Your task to perform on an android device: open app "Facebook Messenger" (install if not already installed) and go to login screen Image 0: 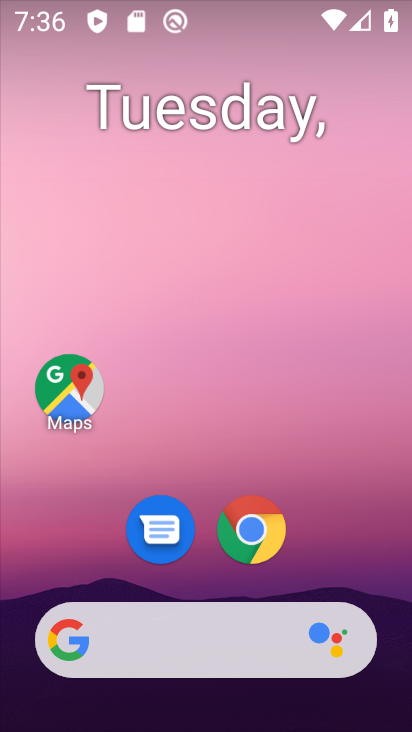
Step 0: press home button
Your task to perform on an android device: open app "Facebook Messenger" (install if not already installed) and go to login screen Image 1: 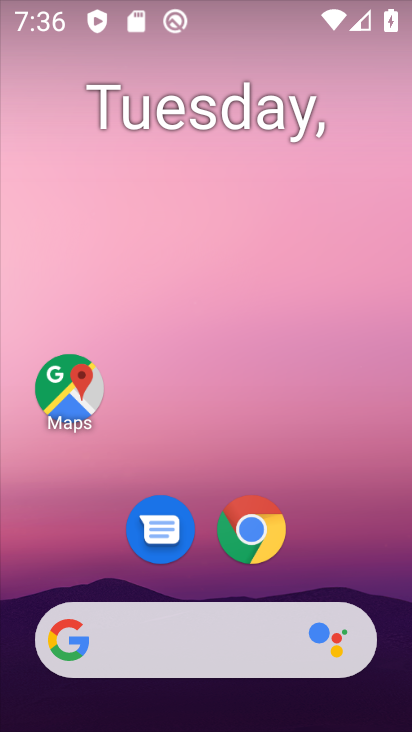
Step 1: drag from (341, 579) to (378, 0)
Your task to perform on an android device: open app "Facebook Messenger" (install if not already installed) and go to login screen Image 2: 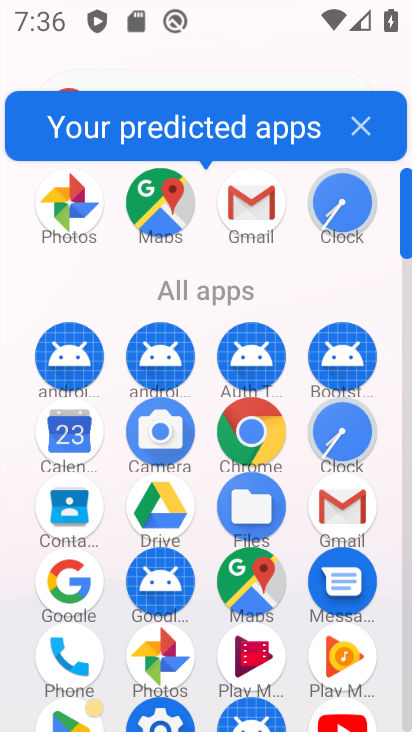
Step 2: drag from (204, 616) to (226, 185)
Your task to perform on an android device: open app "Facebook Messenger" (install if not already installed) and go to login screen Image 3: 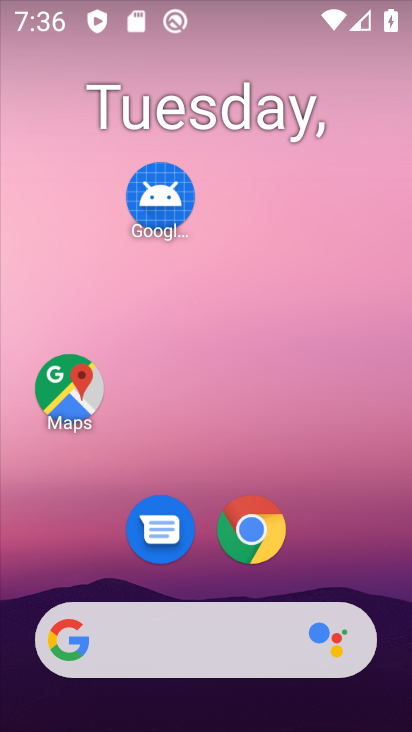
Step 3: drag from (330, 551) to (349, 43)
Your task to perform on an android device: open app "Facebook Messenger" (install if not already installed) and go to login screen Image 4: 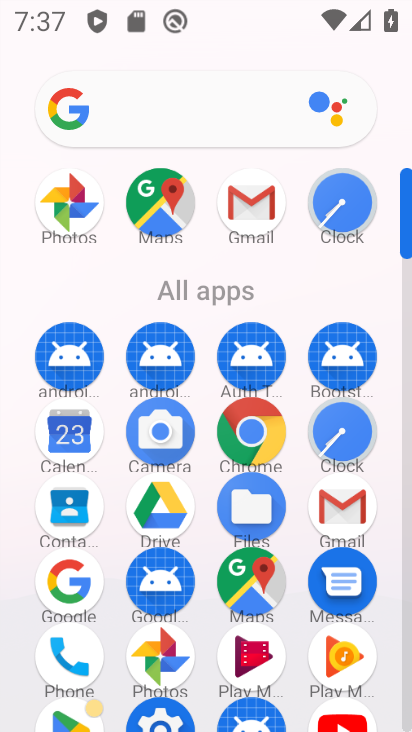
Step 4: drag from (300, 549) to (312, 96)
Your task to perform on an android device: open app "Facebook Messenger" (install if not already installed) and go to login screen Image 5: 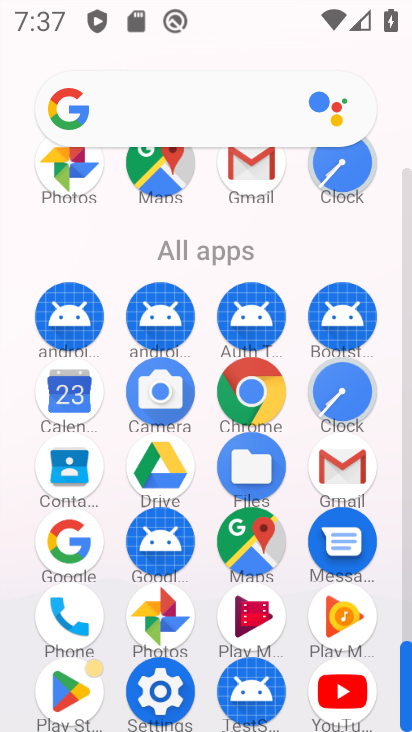
Step 5: click (64, 691)
Your task to perform on an android device: open app "Facebook Messenger" (install if not already installed) and go to login screen Image 6: 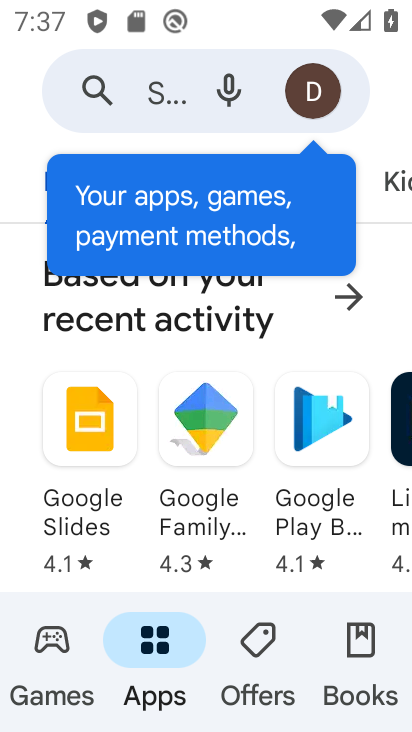
Step 6: click (322, 86)
Your task to perform on an android device: open app "Facebook Messenger" (install if not already installed) and go to login screen Image 7: 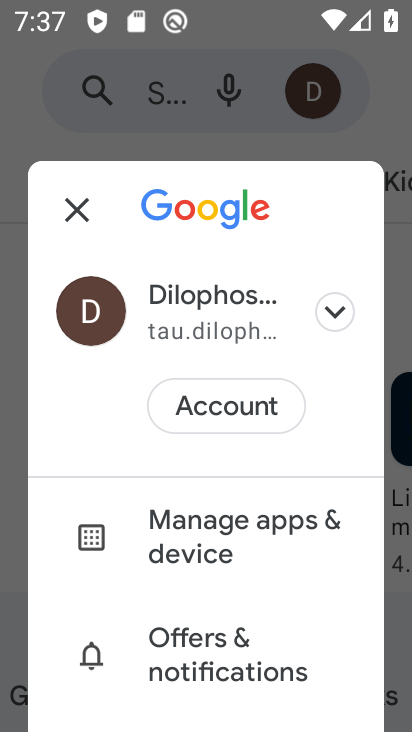
Step 7: click (197, 554)
Your task to perform on an android device: open app "Facebook Messenger" (install if not already installed) and go to login screen Image 8: 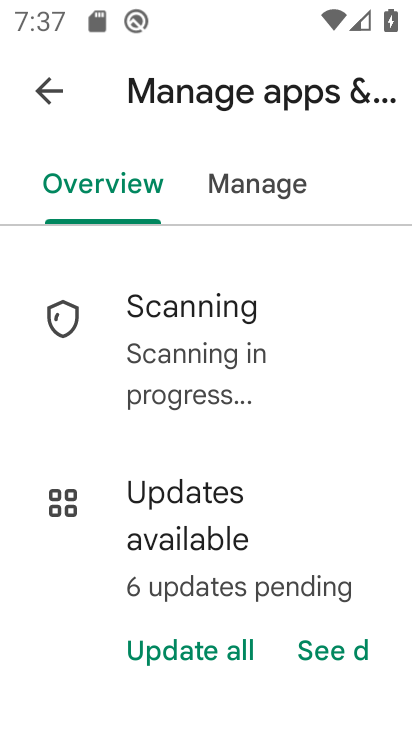
Step 8: click (52, 97)
Your task to perform on an android device: open app "Facebook Messenger" (install if not already installed) and go to login screen Image 9: 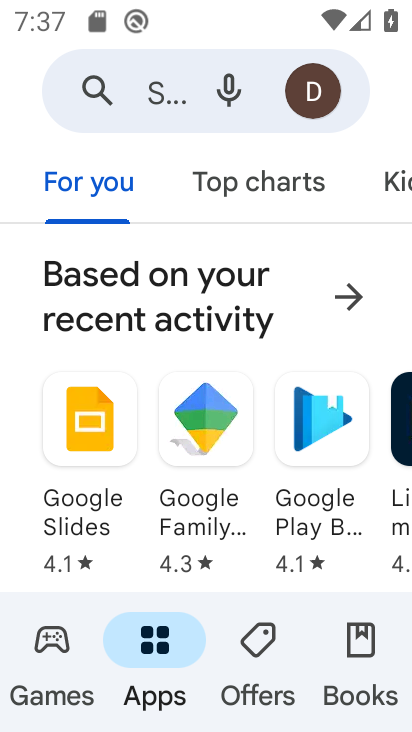
Step 9: click (140, 89)
Your task to perform on an android device: open app "Facebook Messenger" (install if not already installed) and go to login screen Image 10: 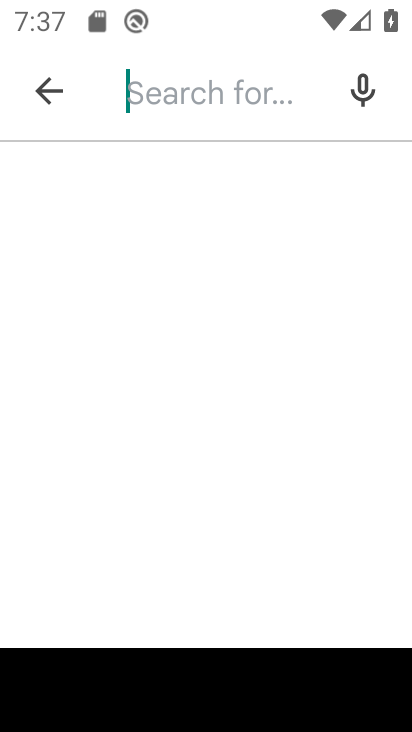
Step 10: type "Facebook Messenger"
Your task to perform on an android device: open app "Facebook Messenger" (install if not already installed) and go to login screen Image 11: 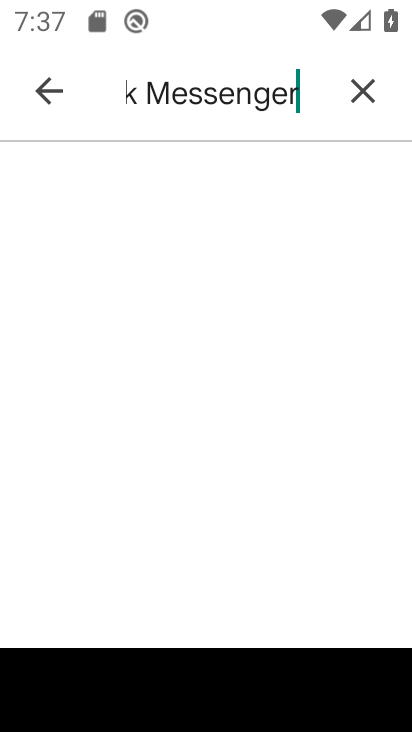
Step 11: type ""
Your task to perform on an android device: open app "Facebook Messenger" (install if not already installed) and go to login screen Image 12: 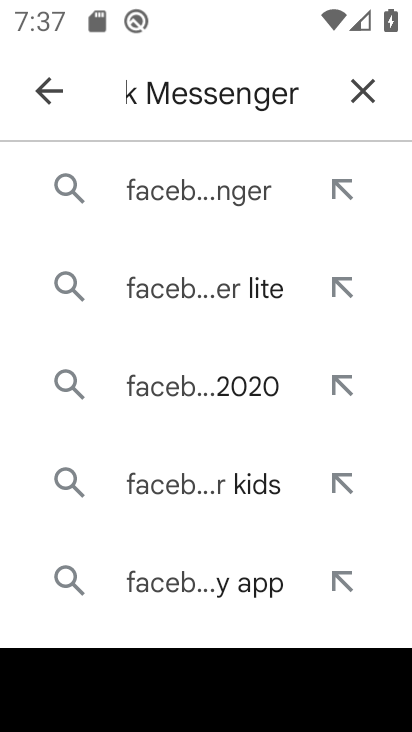
Step 12: click (214, 202)
Your task to perform on an android device: open app "Facebook Messenger" (install if not already installed) and go to login screen Image 13: 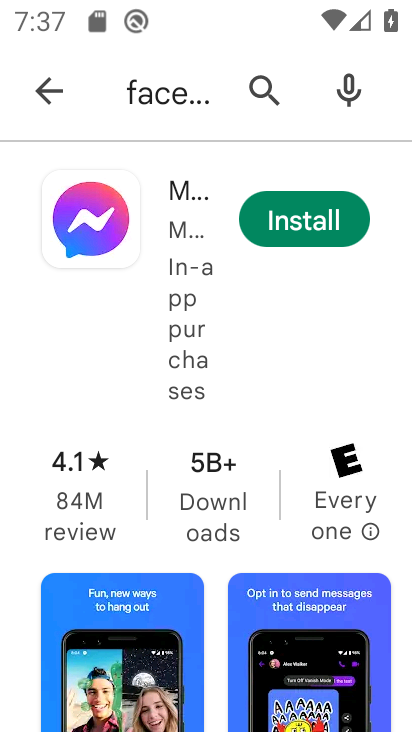
Step 13: click (307, 215)
Your task to perform on an android device: open app "Facebook Messenger" (install if not already installed) and go to login screen Image 14: 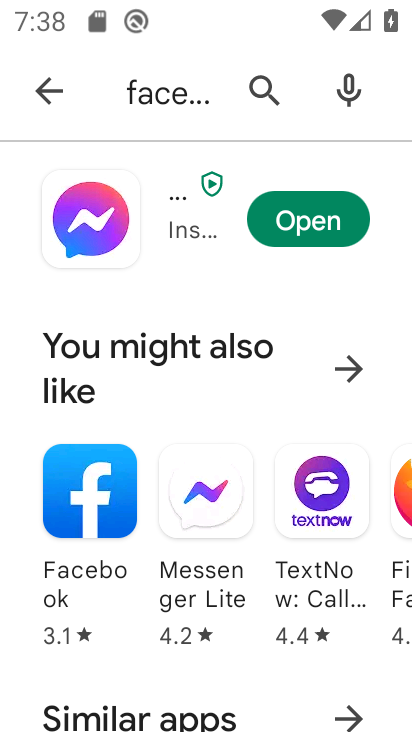
Step 14: click (329, 222)
Your task to perform on an android device: open app "Facebook Messenger" (install if not already installed) and go to login screen Image 15: 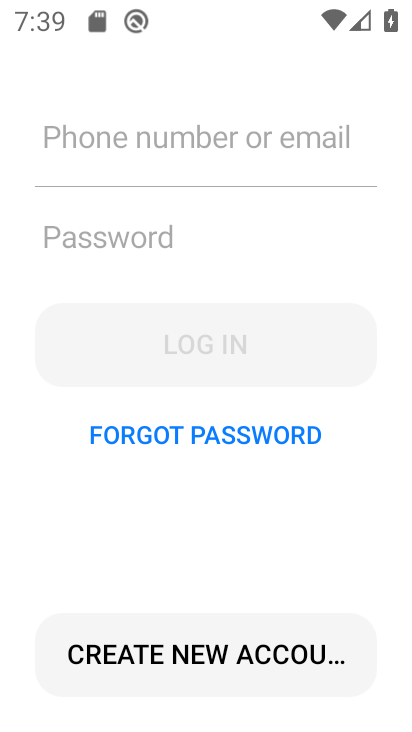
Step 15: task complete